Your task to perform on an android device: check google app version Image 0: 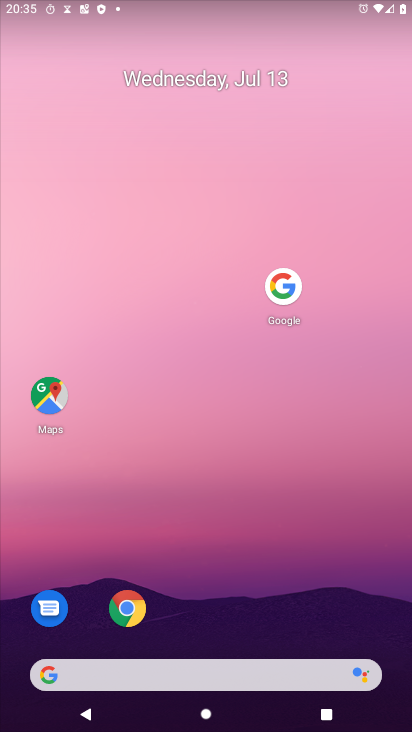
Step 0: drag from (186, 641) to (124, 137)
Your task to perform on an android device: check google app version Image 1: 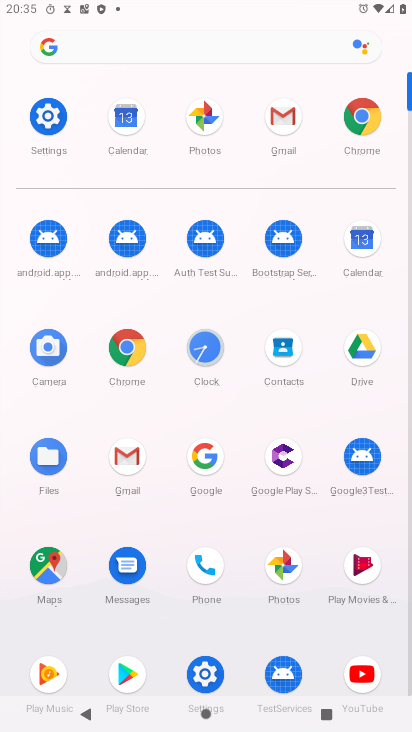
Step 1: click (213, 461)
Your task to perform on an android device: check google app version Image 2: 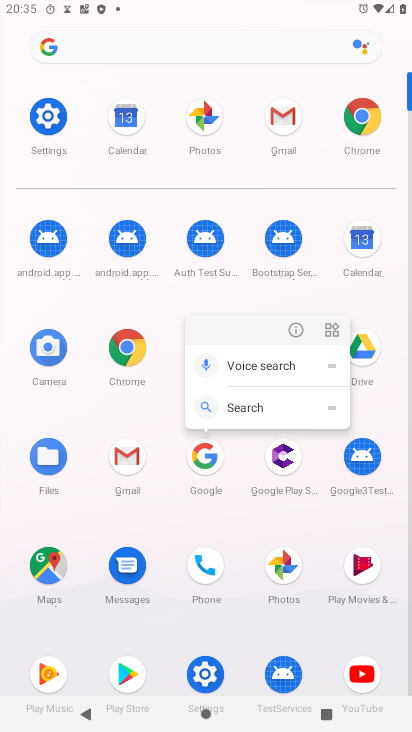
Step 2: click (297, 325)
Your task to perform on an android device: check google app version Image 3: 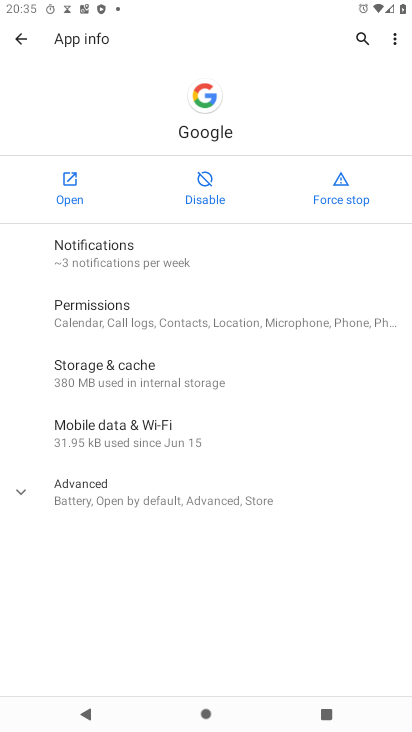
Step 3: drag from (190, 610) to (180, 388)
Your task to perform on an android device: check google app version Image 4: 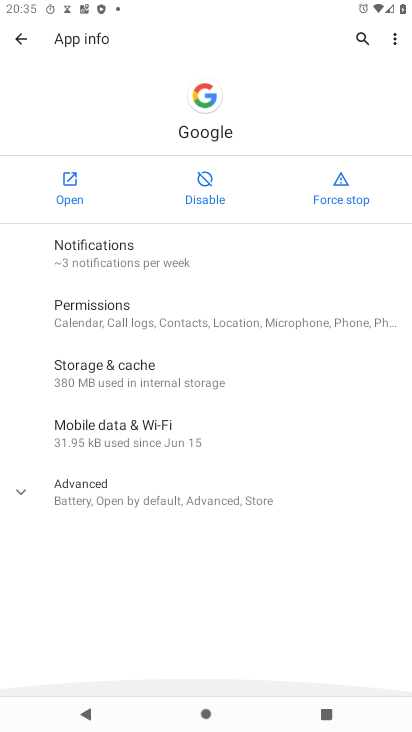
Step 4: click (176, 489)
Your task to perform on an android device: check google app version Image 5: 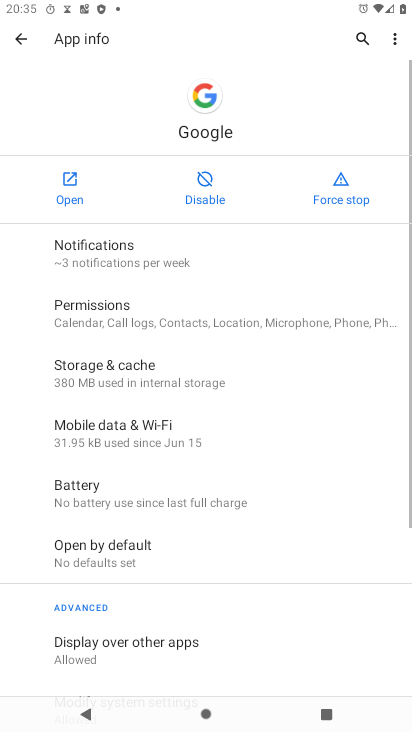
Step 5: task complete